Your task to perform on an android device: Is it going to rain today? Image 0: 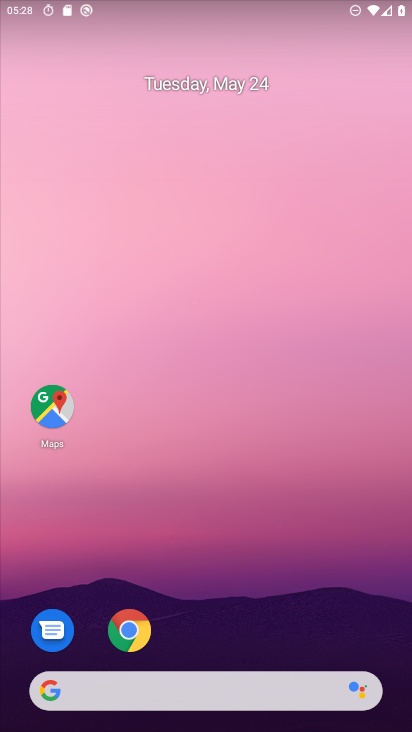
Step 0: click (196, 683)
Your task to perform on an android device: Is it going to rain today? Image 1: 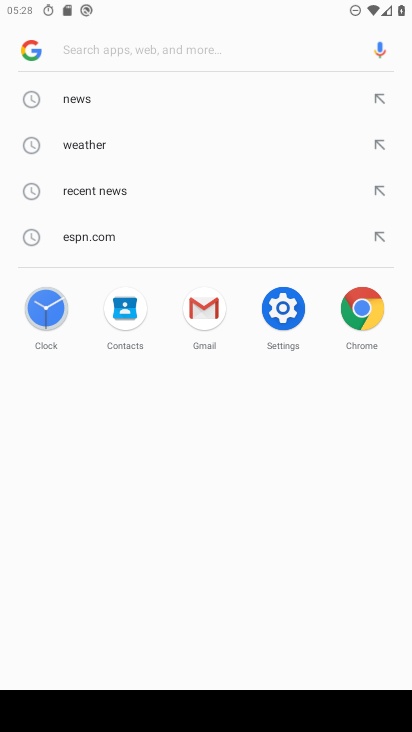
Step 1: click (115, 141)
Your task to perform on an android device: Is it going to rain today? Image 2: 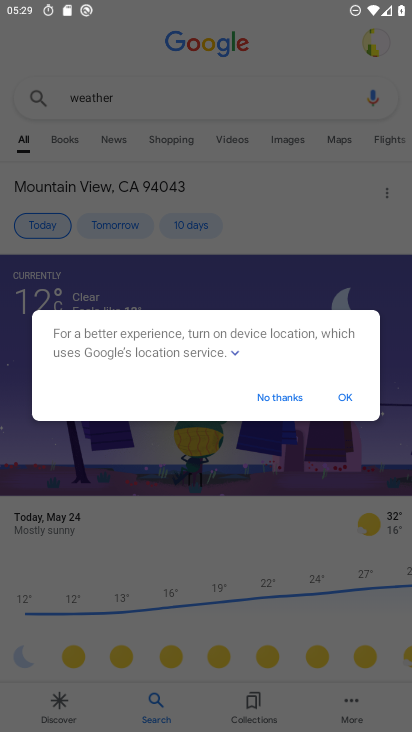
Step 2: task complete